Your task to perform on an android device: Check the weather Image 0: 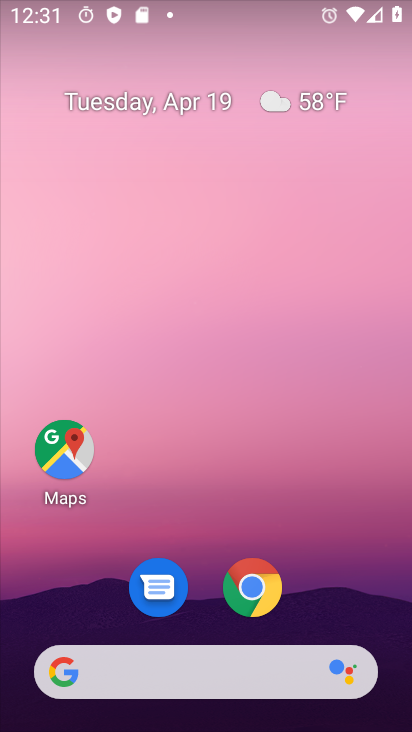
Step 0: drag from (357, 565) to (339, 101)
Your task to perform on an android device: Check the weather Image 1: 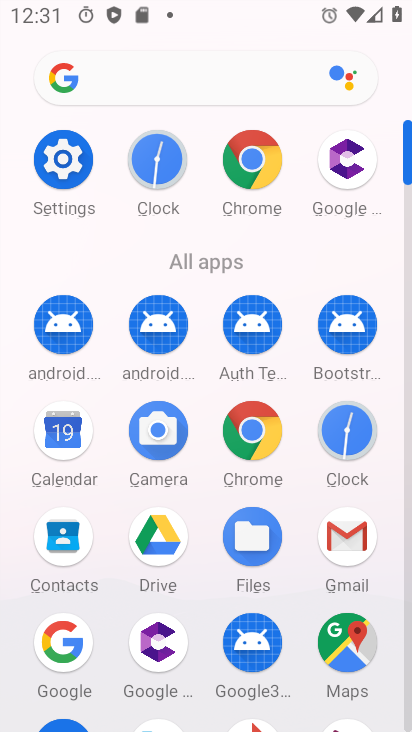
Step 1: click (271, 439)
Your task to perform on an android device: Check the weather Image 2: 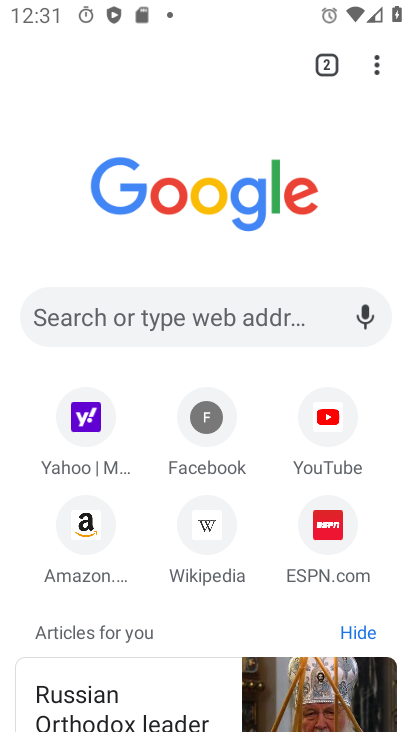
Step 2: click (212, 298)
Your task to perform on an android device: Check the weather Image 3: 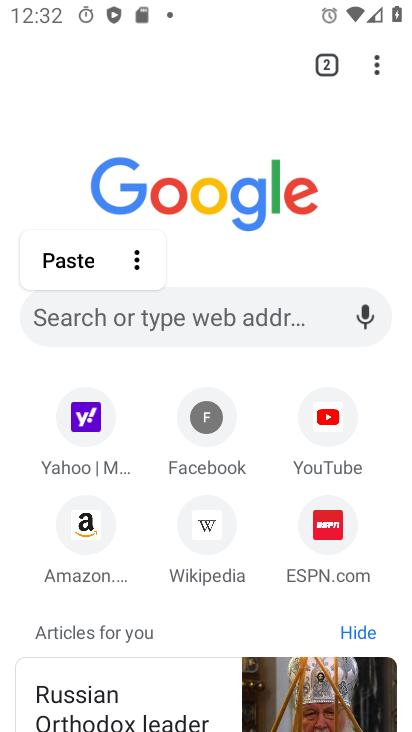
Step 3: click (244, 306)
Your task to perform on an android device: Check the weather Image 4: 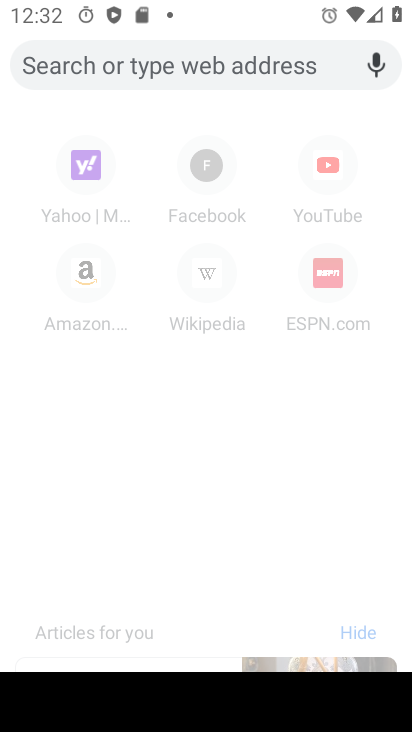
Step 4: type "weather"
Your task to perform on an android device: Check the weather Image 5: 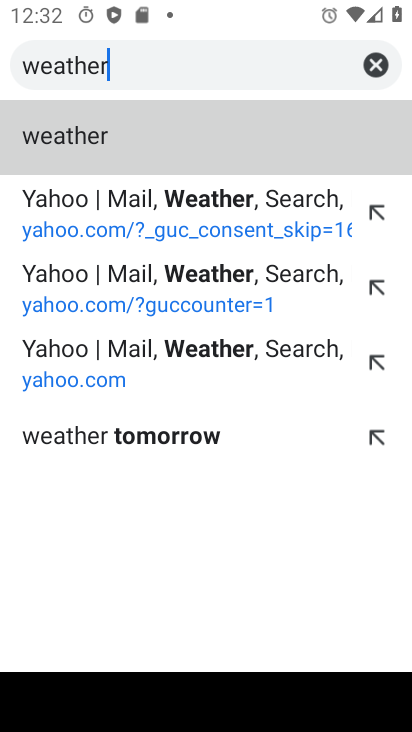
Step 5: click (65, 126)
Your task to perform on an android device: Check the weather Image 6: 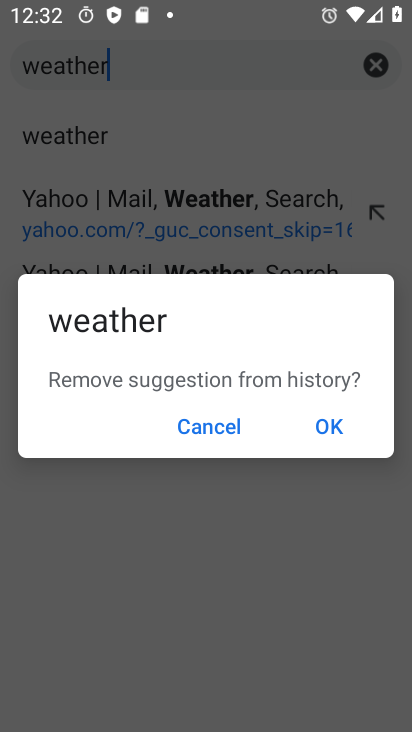
Step 6: click (221, 432)
Your task to perform on an android device: Check the weather Image 7: 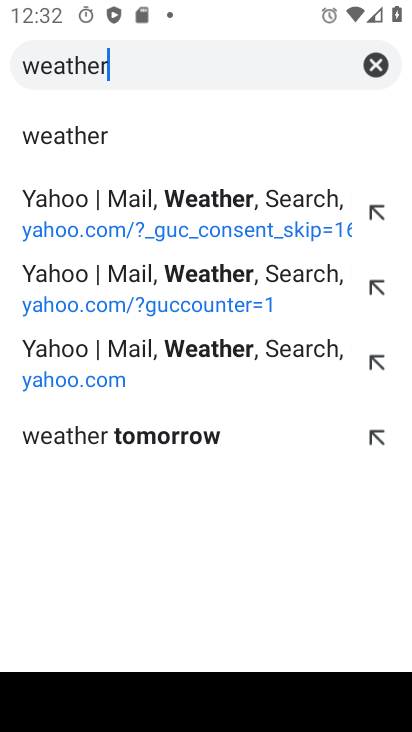
Step 7: click (56, 192)
Your task to perform on an android device: Check the weather Image 8: 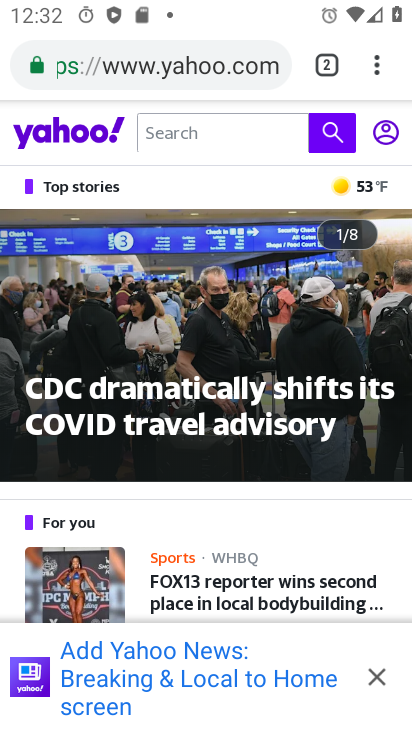
Step 8: task complete